Your task to perform on an android device: Search for Italian restaurants on Maps Image 0: 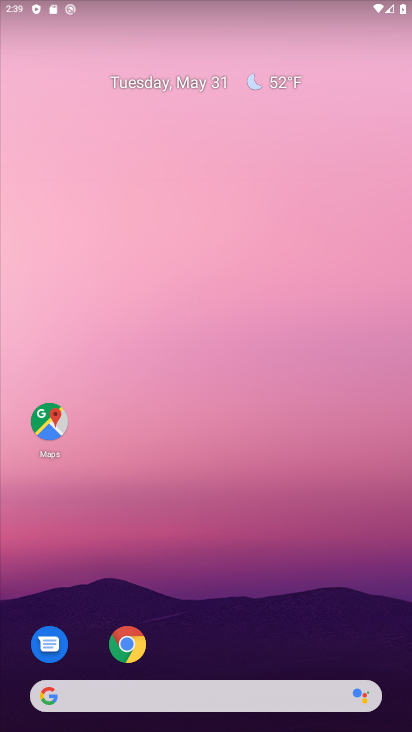
Step 0: click (47, 407)
Your task to perform on an android device: Search for Italian restaurants on Maps Image 1: 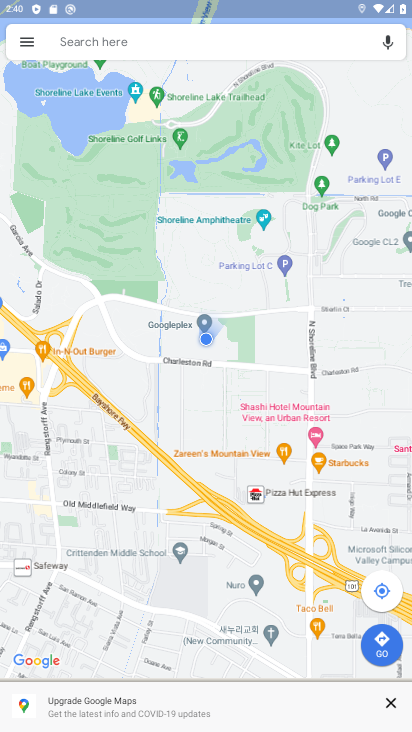
Step 1: click (193, 47)
Your task to perform on an android device: Search for Italian restaurants on Maps Image 2: 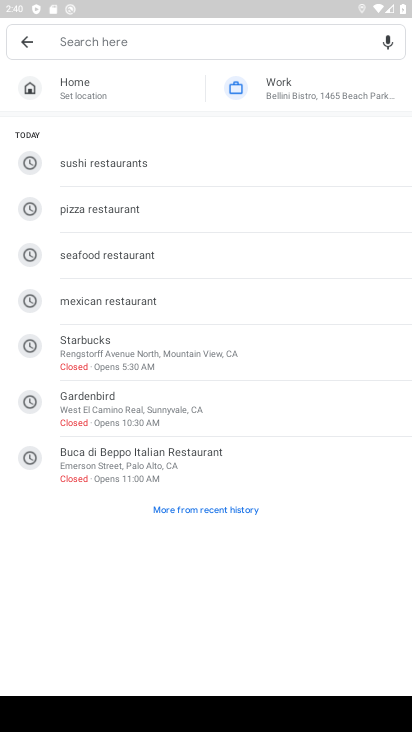
Step 2: type "Italian restaurants"
Your task to perform on an android device: Search for Italian restaurants on Maps Image 3: 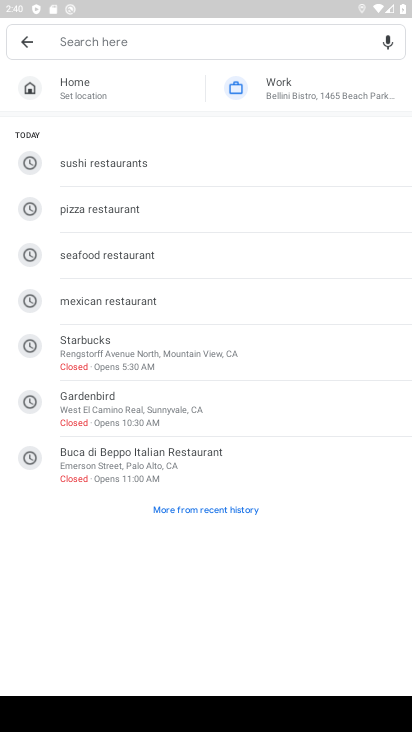
Step 3: click (118, 39)
Your task to perform on an android device: Search for Italian restaurants on Maps Image 4: 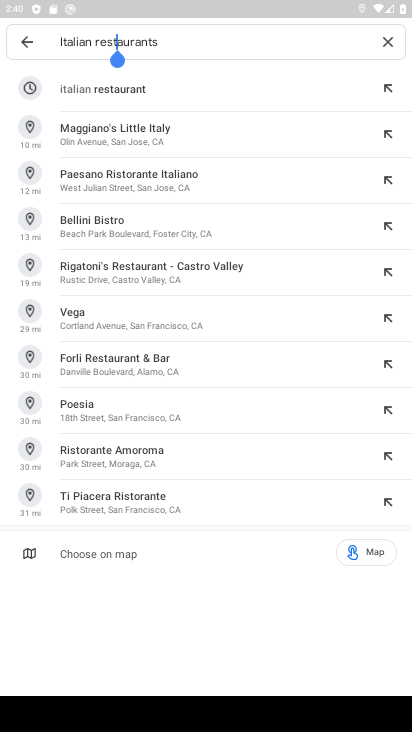
Step 4: click (86, 90)
Your task to perform on an android device: Search for Italian restaurants on Maps Image 5: 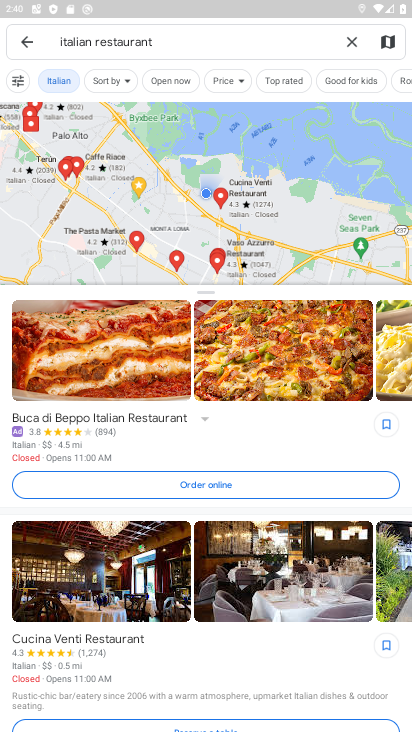
Step 5: task complete